Your task to perform on an android device: Open location settings Image 0: 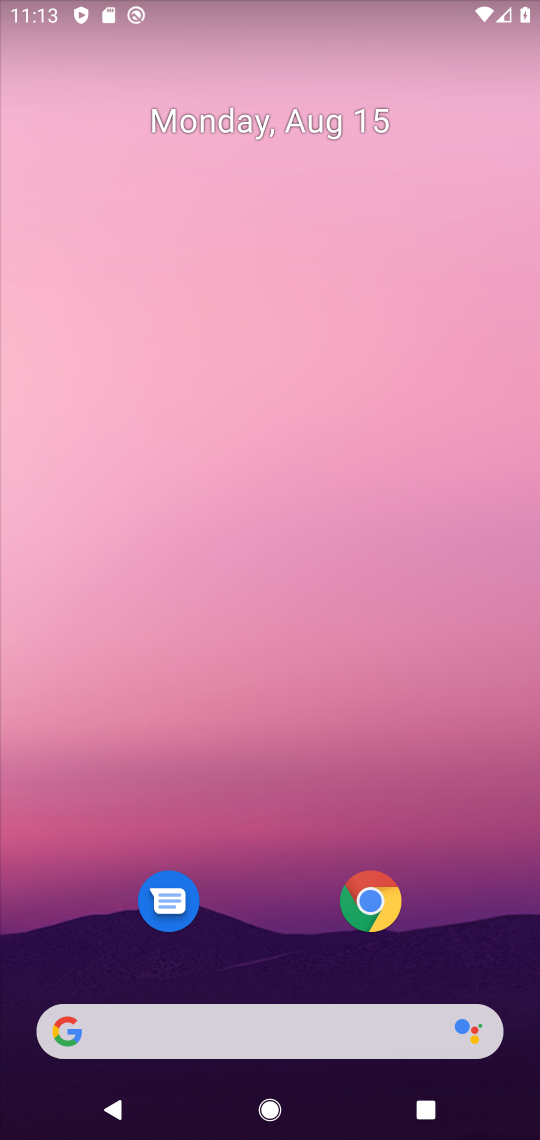
Step 0: press home button
Your task to perform on an android device: Open location settings Image 1: 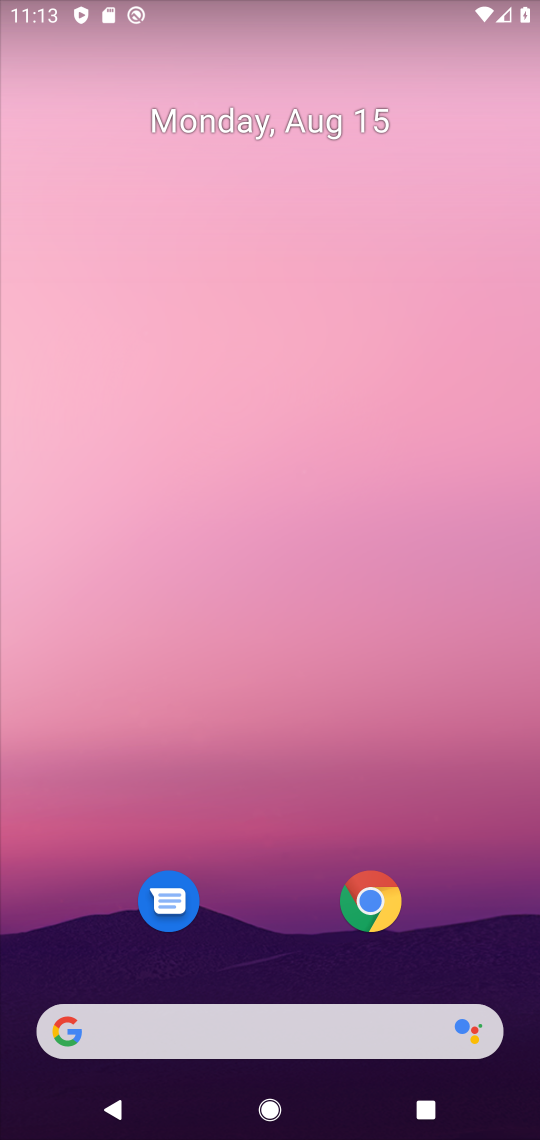
Step 1: drag from (333, 829) to (327, 161)
Your task to perform on an android device: Open location settings Image 2: 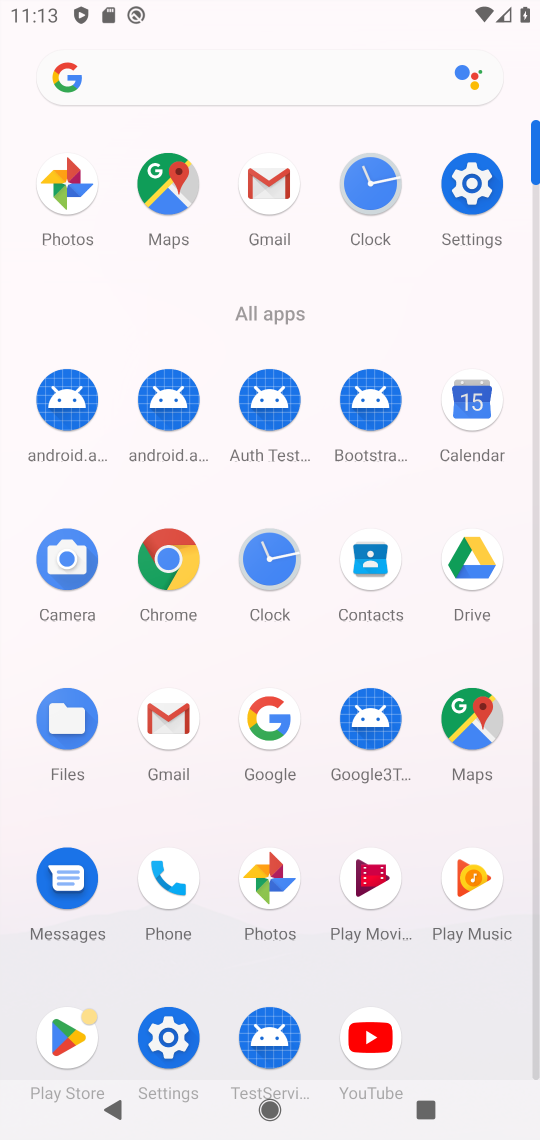
Step 2: click (471, 201)
Your task to perform on an android device: Open location settings Image 3: 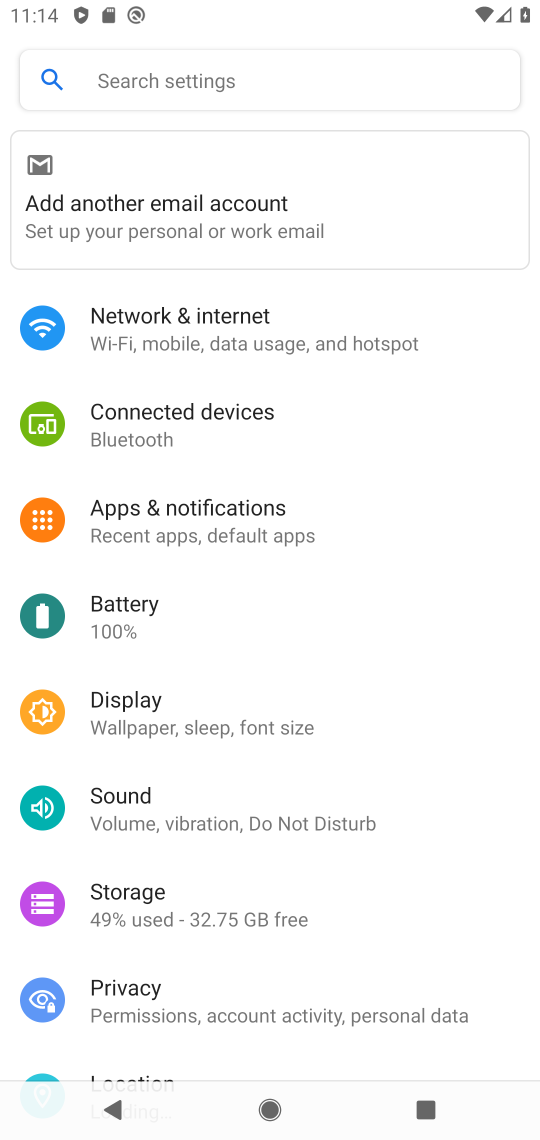
Step 3: drag from (485, 1021) to (456, 299)
Your task to perform on an android device: Open location settings Image 4: 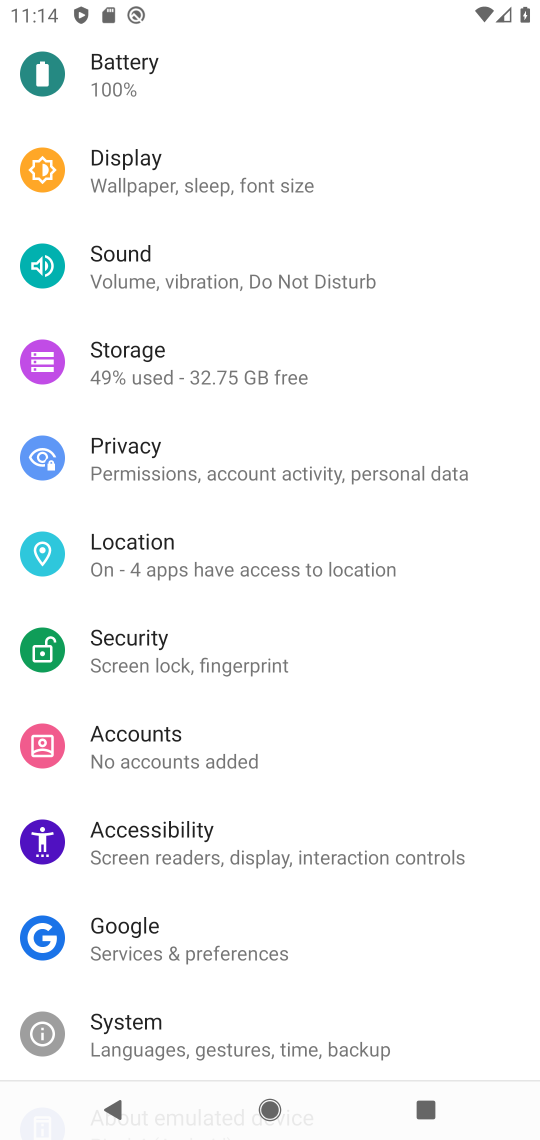
Step 4: click (123, 535)
Your task to perform on an android device: Open location settings Image 5: 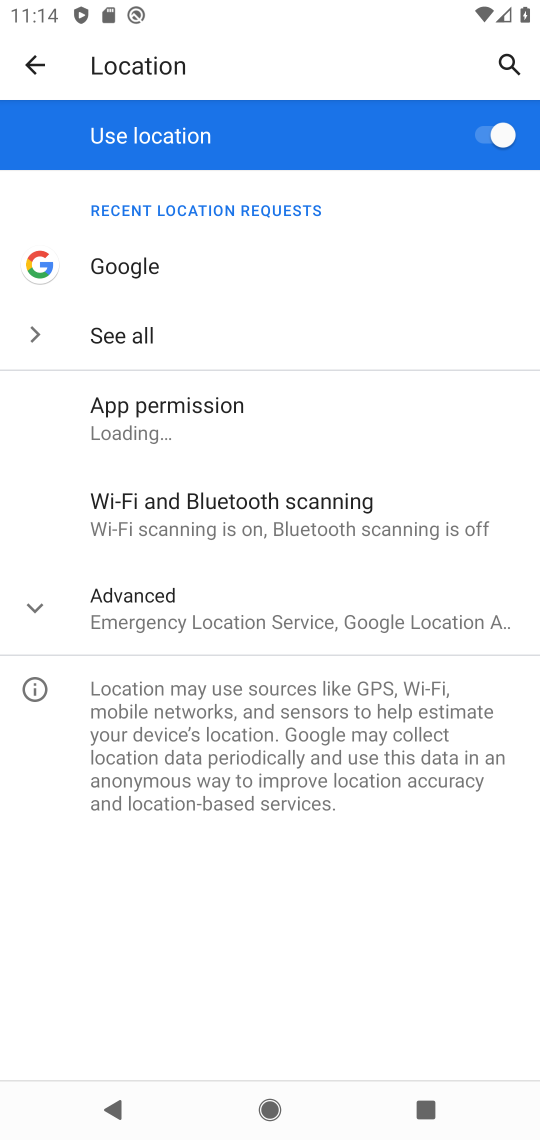
Step 5: task complete